Your task to perform on an android device: Do I have any events this weekend? Image 0: 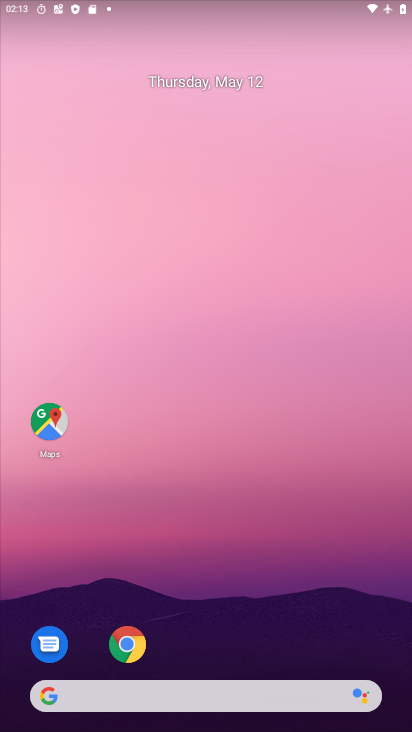
Step 0: drag from (258, 616) to (234, 83)
Your task to perform on an android device: Do I have any events this weekend? Image 1: 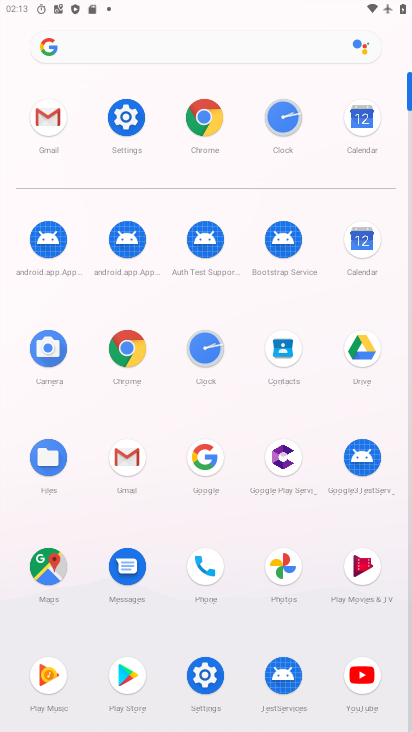
Step 1: click (360, 243)
Your task to perform on an android device: Do I have any events this weekend? Image 2: 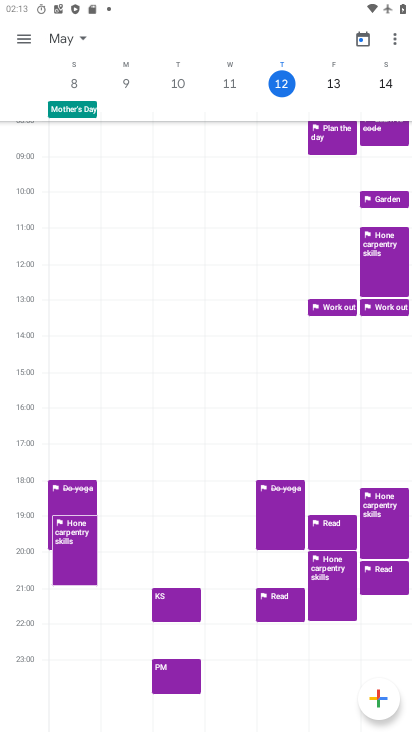
Step 2: task complete